Your task to perform on an android device: open chrome and create a bookmark for the current page Image 0: 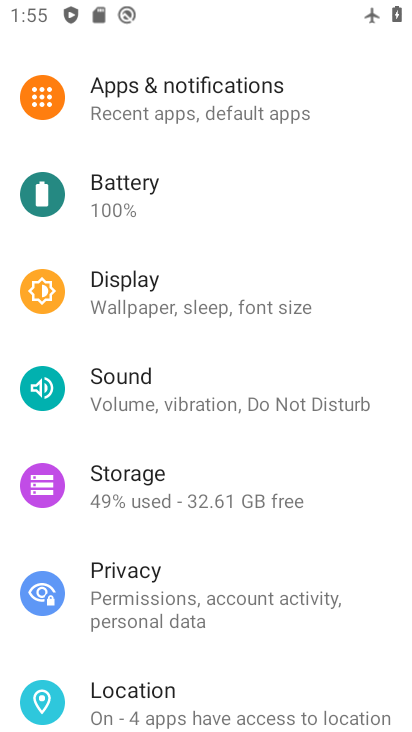
Step 0: press home button
Your task to perform on an android device: open chrome and create a bookmark for the current page Image 1: 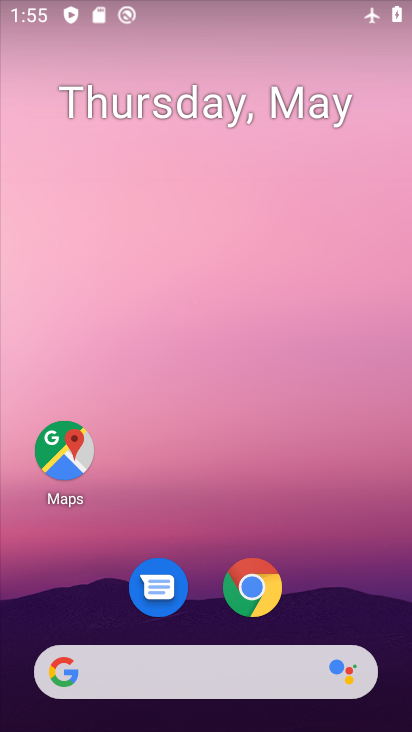
Step 1: click (267, 577)
Your task to perform on an android device: open chrome and create a bookmark for the current page Image 2: 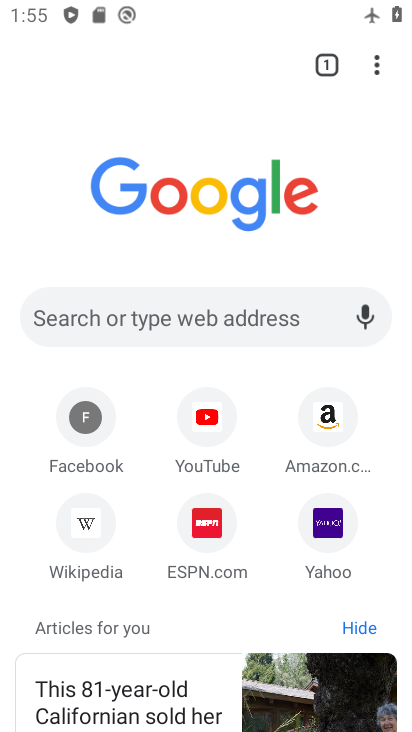
Step 2: click (376, 61)
Your task to perform on an android device: open chrome and create a bookmark for the current page Image 3: 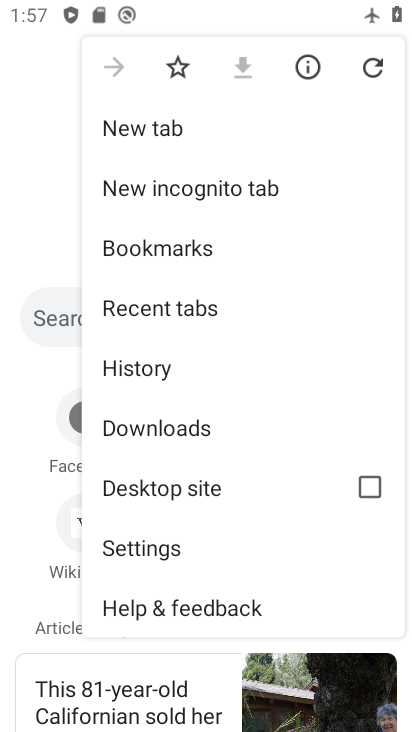
Step 3: click (183, 64)
Your task to perform on an android device: open chrome and create a bookmark for the current page Image 4: 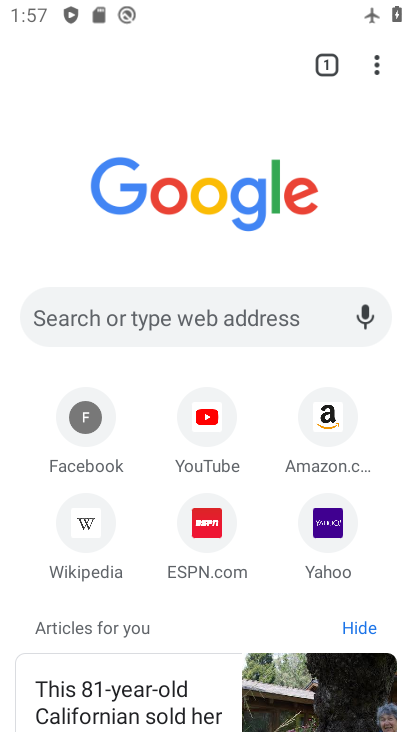
Step 4: task complete